Your task to perform on an android device: see tabs open on other devices in the chrome app Image 0: 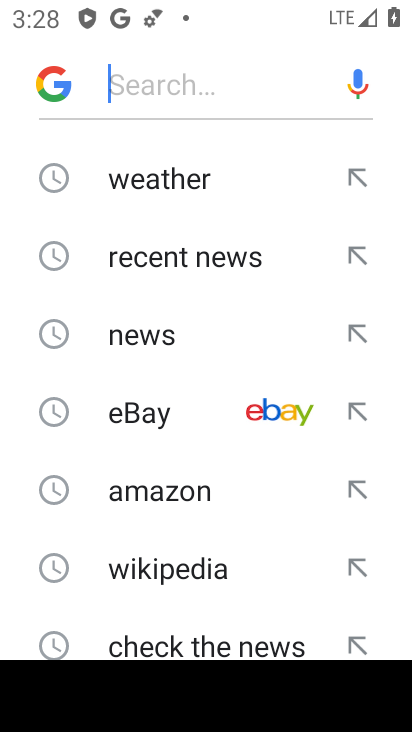
Step 0: press home button
Your task to perform on an android device: see tabs open on other devices in the chrome app Image 1: 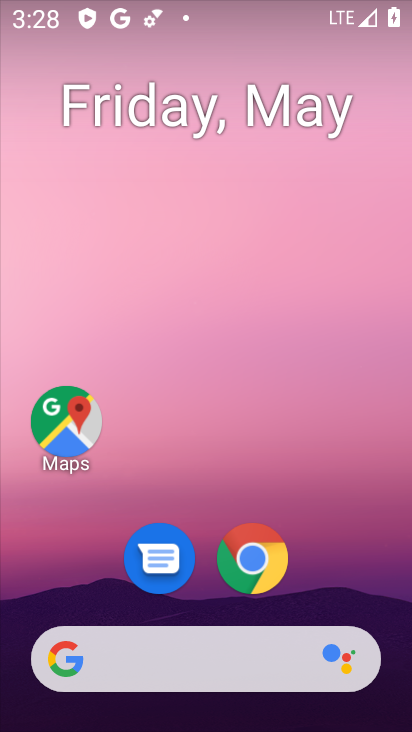
Step 1: click (260, 573)
Your task to perform on an android device: see tabs open on other devices in the chrome app Image 2: 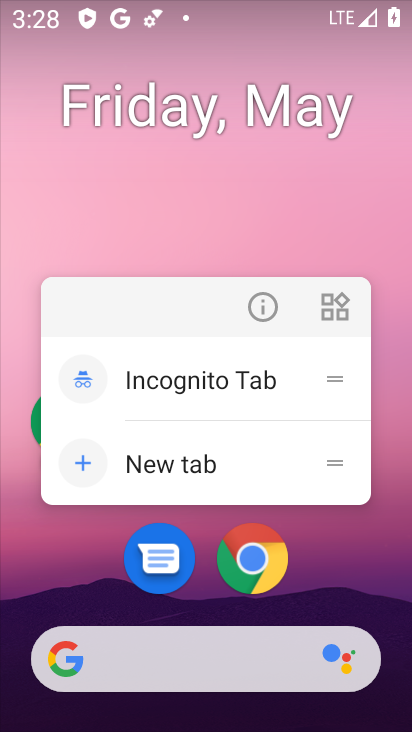
Step 2: click (253, 569)
Your task to perform on an android device: see tabs open on other devices in the chrome app Image 3: 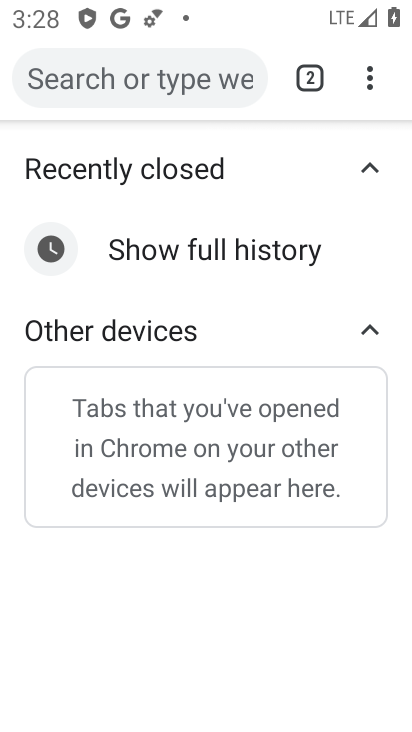
Step 3: task complete